Your task to perform on an android device: search for starred emails in the gmail app Image 0: 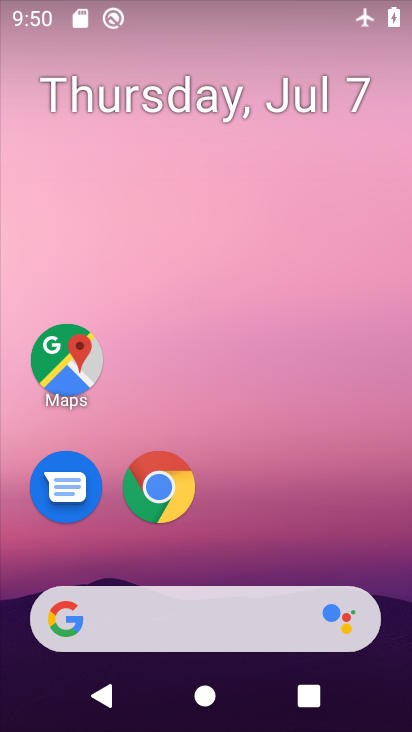
Step 0: drag from (377, 538) to (380, 113)
Your task to perform on an android device: search for starred emails in the gmail app Image 1: 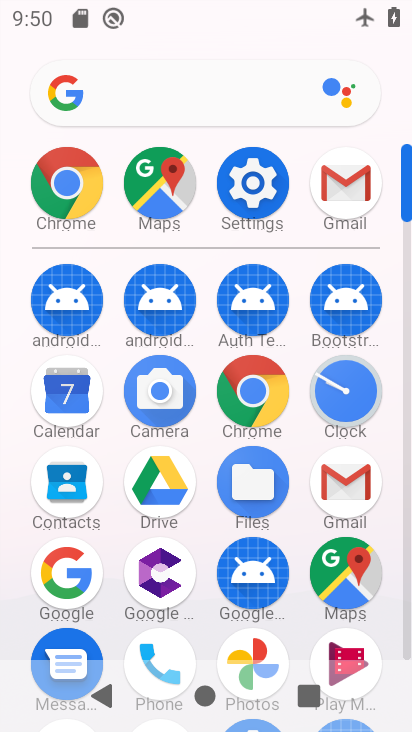
Step 1: click (367, 197)
Your task to perform on an android device: search for starred emails in the gmail app Image 2: 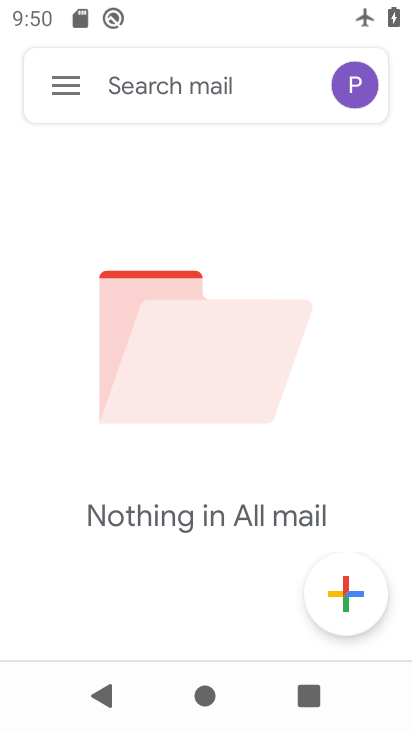
Step 2: click (84, 75)
Your task to perform on an android device: search for starred emails in the gmail app Image 3: 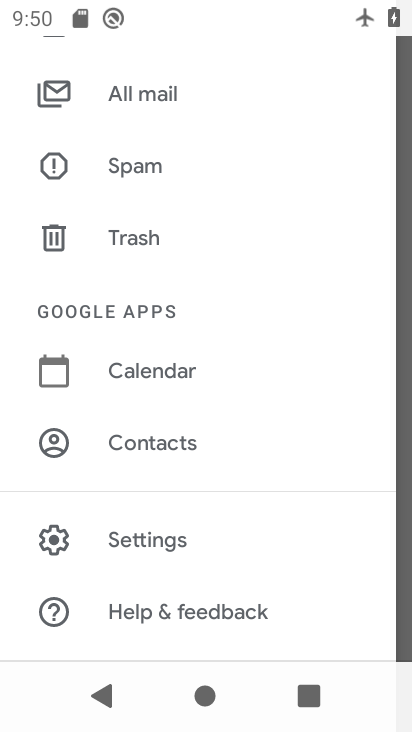
Step 3: drag from (247, 182) to (251, 275)
Your task to perform on an android device: search for starred emails in the gmail app Image 4: 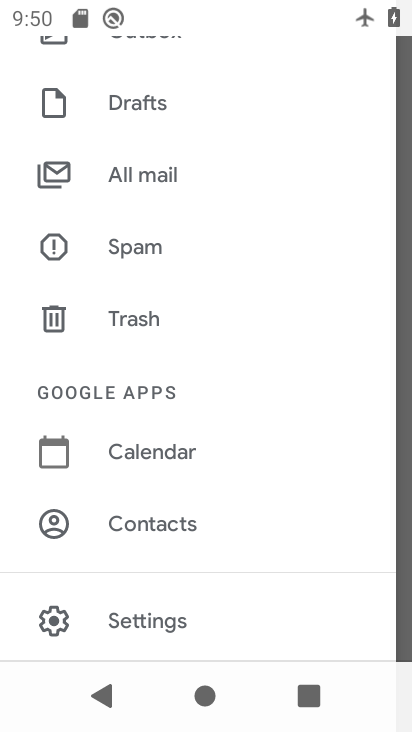
Step 4: click (282, 247)
Your task to perform on an android device: search for starred emails in the gmail app Image 5: 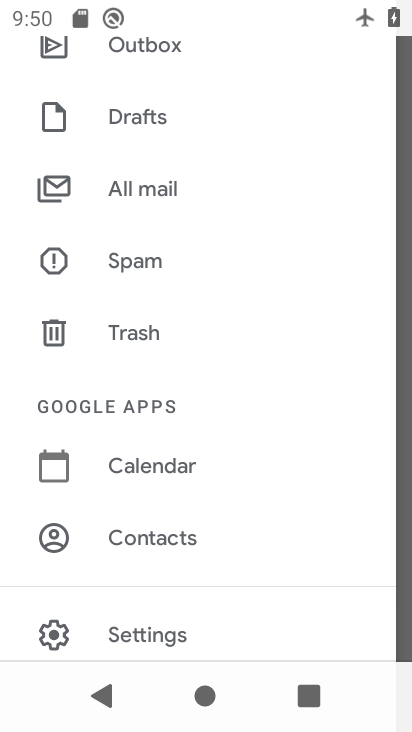
Step 5: drag from (296, 171) to (305, 377)
Your task to perform on an android device: search for starred emails in the gmail app Image 6: 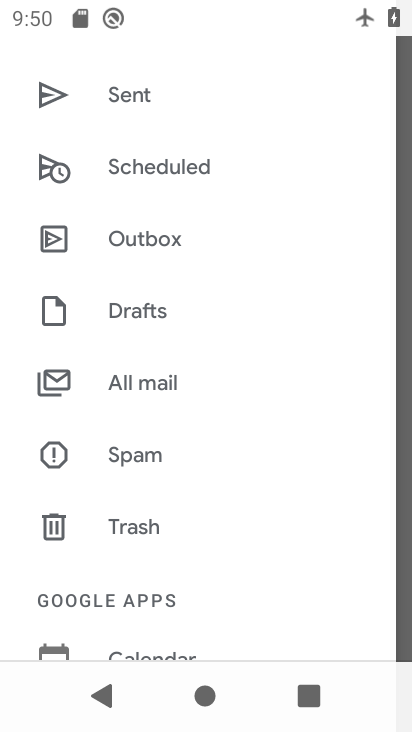
Step 6: drag from (308, 170) to (323, 310)
Your task to perform on an android device: search for starred emails in the gmail app Image 7: 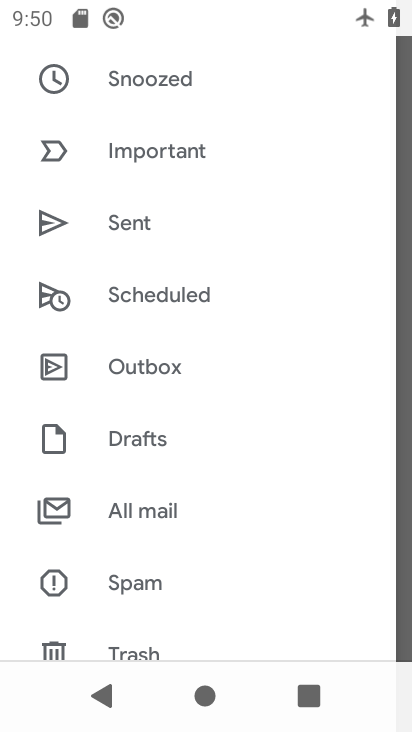
Step 7: drag from (313, 139) to (314, 255)
Your task to perform on an android device: search for starred emails in the gmail app Image 8: 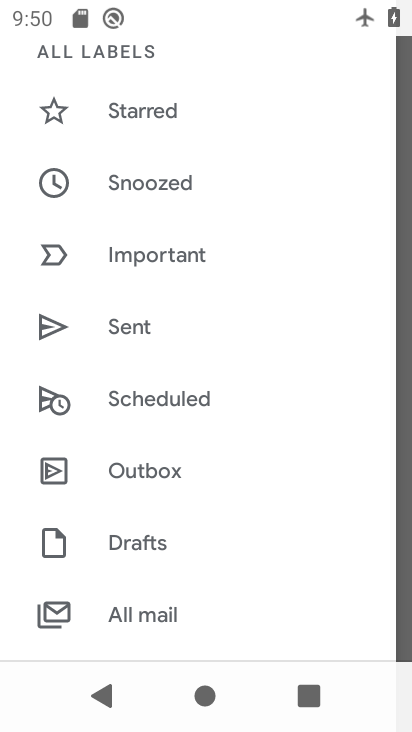
Step 8: drag from (312, 167) to (304, 296)
Your task to perform on an android device: search for starred emails in the gmail app Image 9: 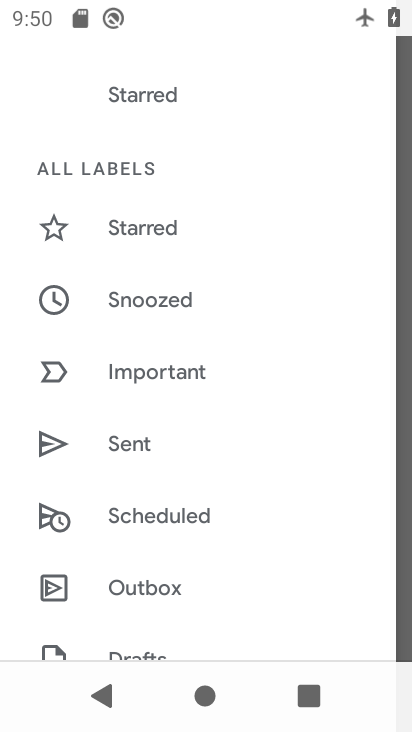
Step 9: drag from (298, 150) to (299, 319)
Your task to perform on an android device: search for starred emails in the gmail app Image 10: 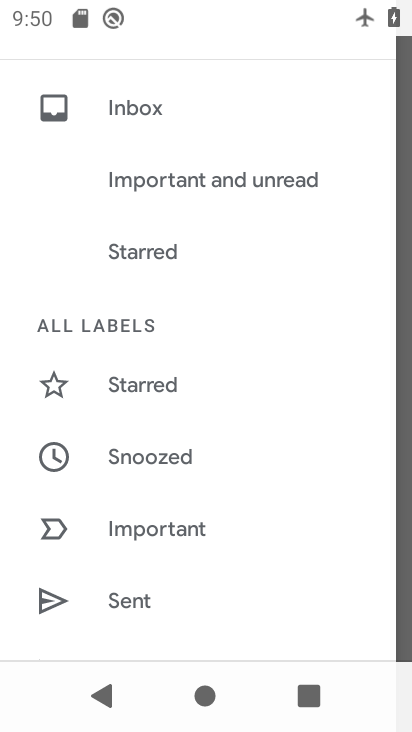
Step 10: drag from (285, 112) to (271, 351)
Your task to perform on an android device: search for starred emails in the gmail app Image 11: 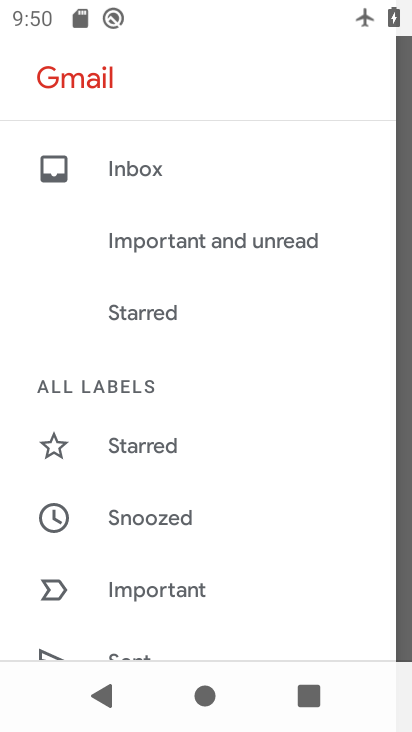
Step 11: click (146, 318)
Your task to perform on an android device: search for starred emails in the gmail app Image 12: 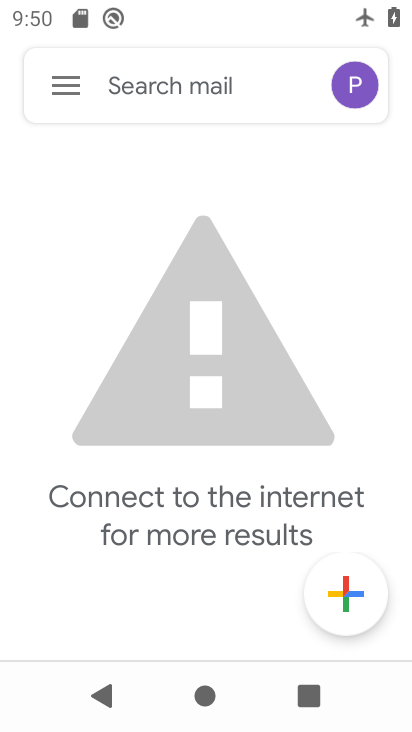
Step 12: task complete